Your task to perform on an android device: check battery use Image 0: 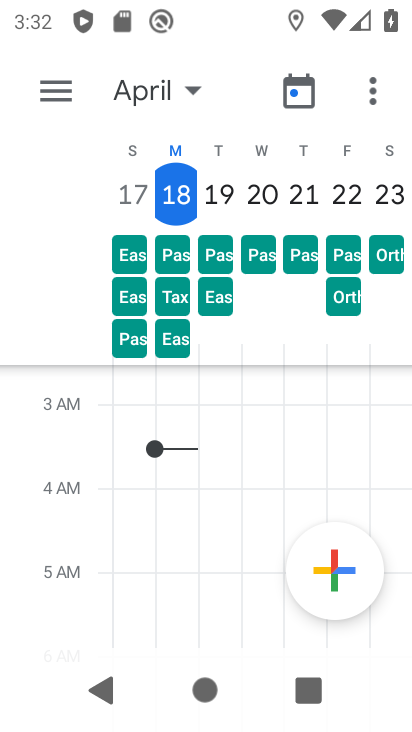
Step 0: click (279, 442)
Your task to perform on an android device: check battery use Image 1: 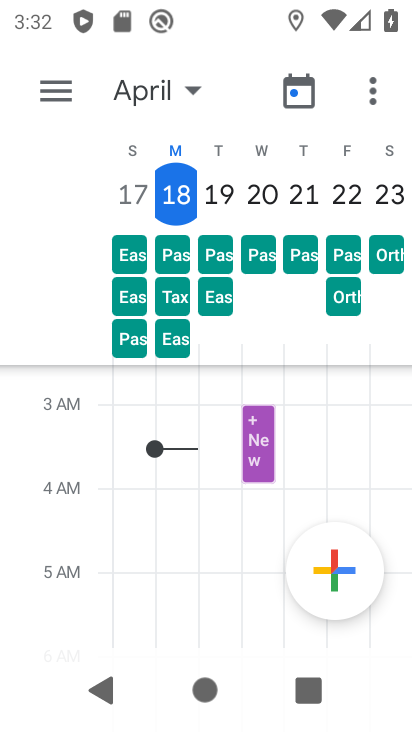
Step 1: press home button
Your task to perform on an android device: check battery use Image 2: 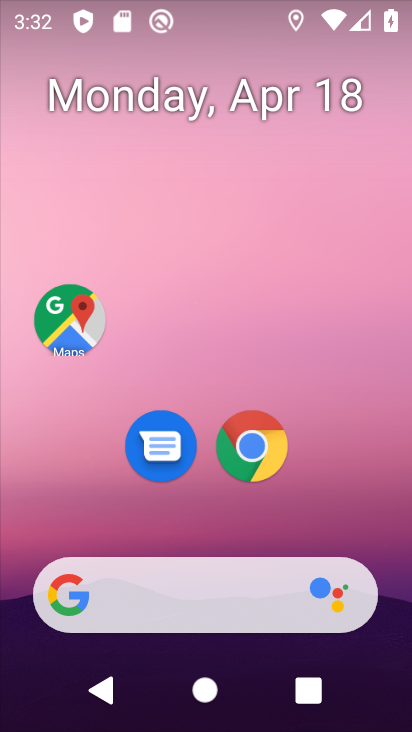
Step 2: click (311, 153)
Your task to perform on an android device: check battery use Image 3: 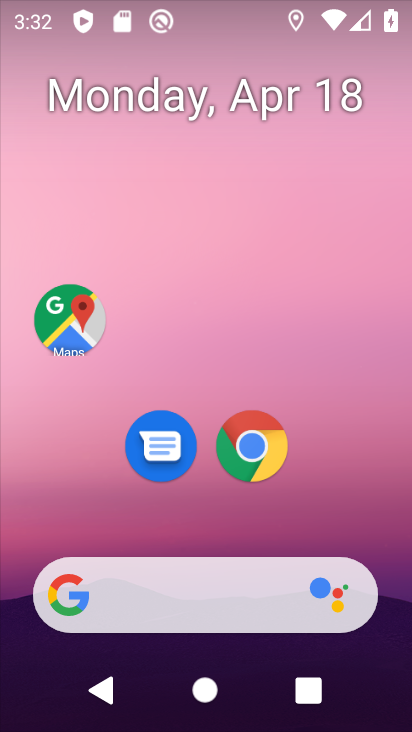
Step 3: drag from (264, 585) to (204, 60)
Your task to perform on an android device: check battery use Image 4: 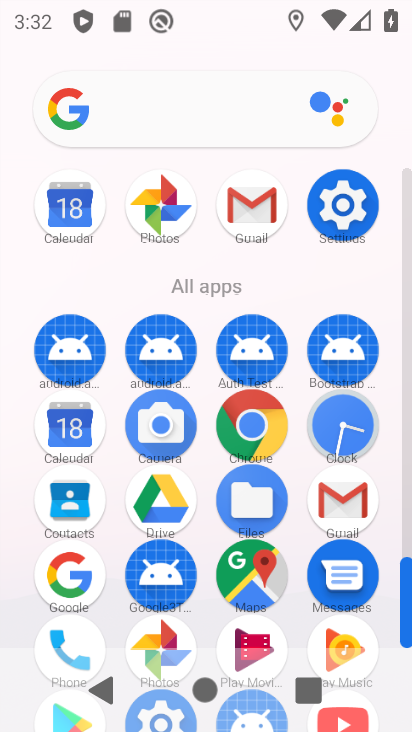
Step 4: click (324, 213)
Your task to perform on an android device: check battery use Image 5: 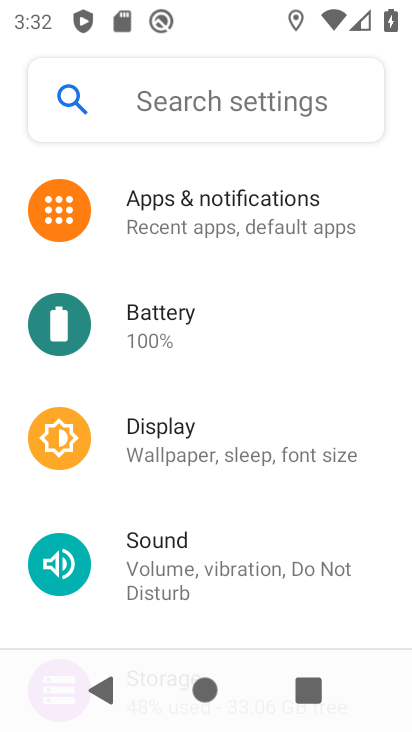
Step 5: click (220, 339)
Your task to perform on an android device: check battery use Image 6: 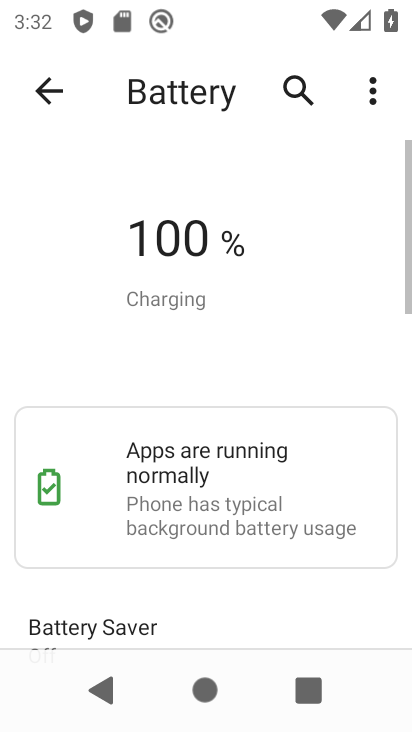
Step 6: click (371, 98)
Your task to perform on an android device: check battery use Image 7: 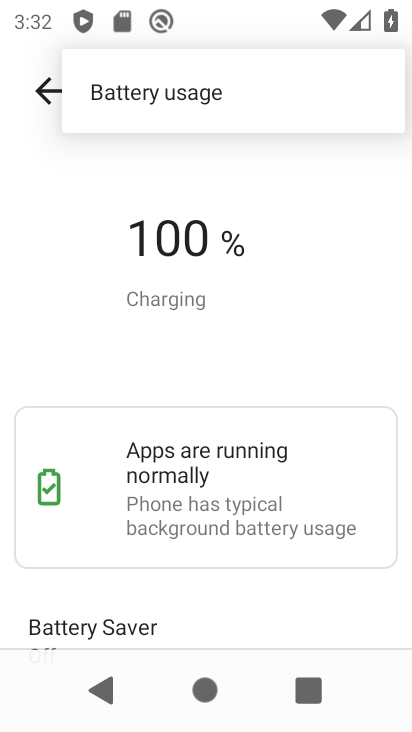
Step 7: click (289, 90)
Your task to perform on an android device: check battery use Image 8: 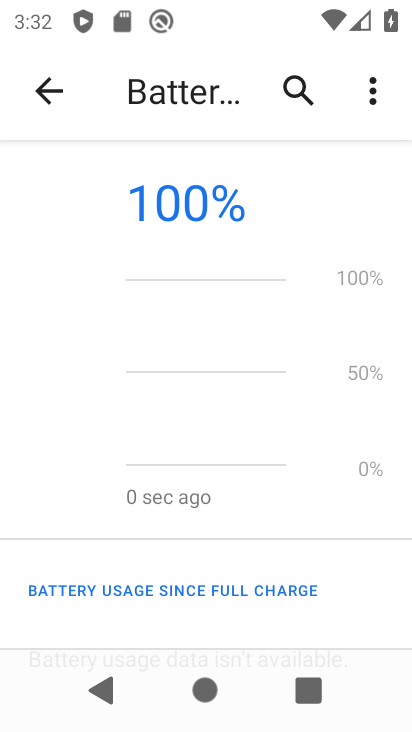
Step 8: task complete